Your task to perform on an android device: Open Yahoo.com Image 0: 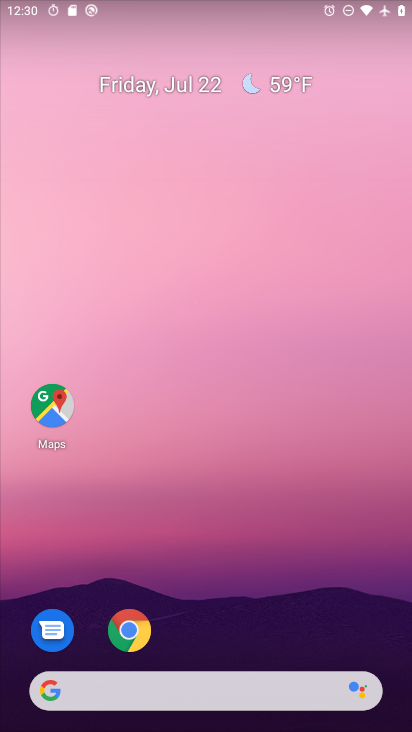
Step 0: click (54, 692)
Your task to perform on an android device: Open Yahoo.com Image 1: 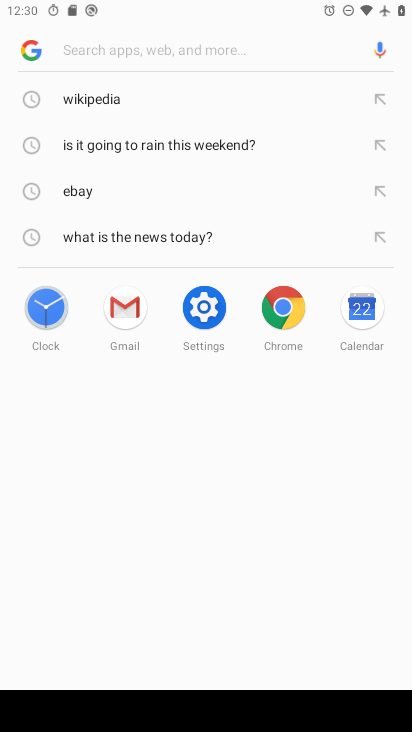
Step 1: type " Yahoo.com"
Your task to perform on an android device: Open Yahoo.com Image 2: 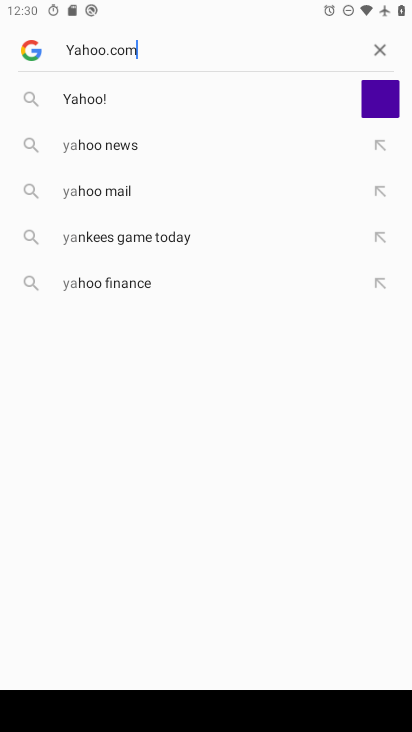
Step 2: press enter
Your task to perform on an android device: Open Yahoo.com Image 3: 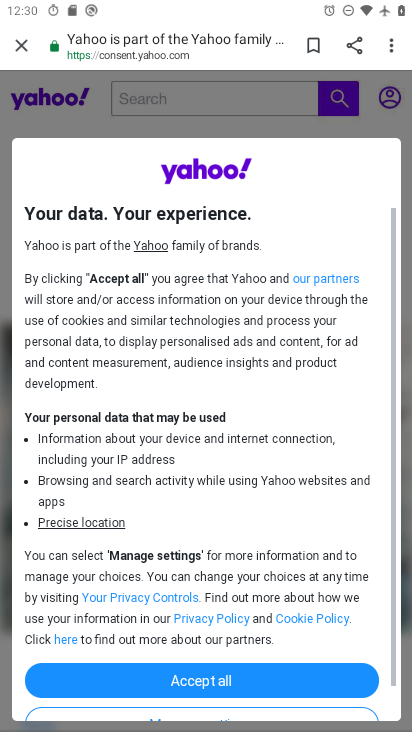
Step 3: click (150, 689)
Your task to perform on an android device: Open Yahoo.com Image 4: 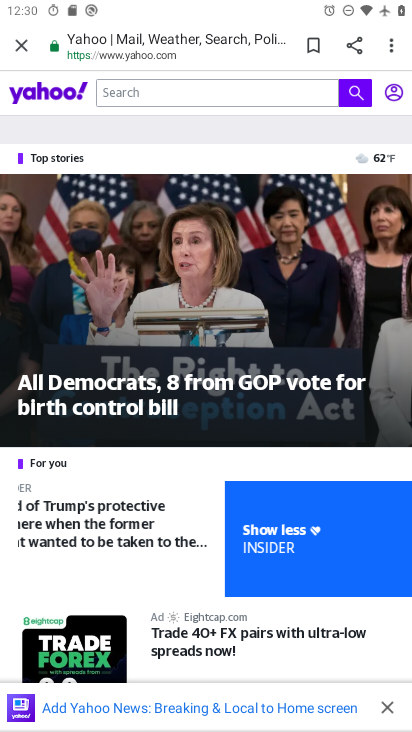
Step 4: task complete